Your task to perform on an android device: Open internet settings Image 0: 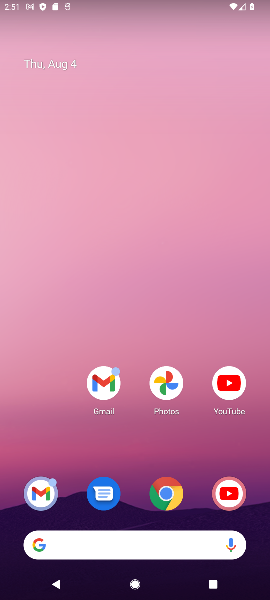
Step 0: drag from (161, 264) to (207, 0)
Your task to perform on an android device: Open internet settings Image 1: 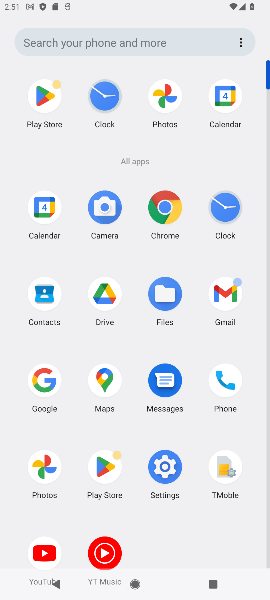
Step 1: click (165, 478)
Your task to perform on an android device: Open internet settings Image 2: 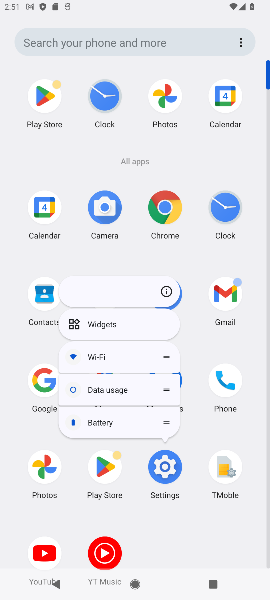
Step 2: click (161, 471)
Your task to perform on an android device: Open internet settings Image 3: 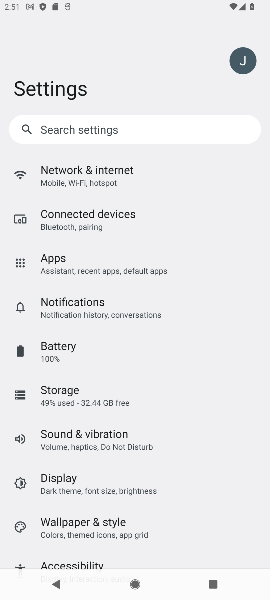
Step 3: click (102, 181)
Your task to perform on an android device: Open internet settings Image 4: 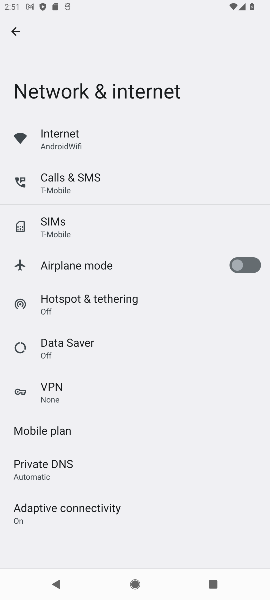
Step 4: task complete